Your task to perform on an android device: When is my next appointment? Image 0: 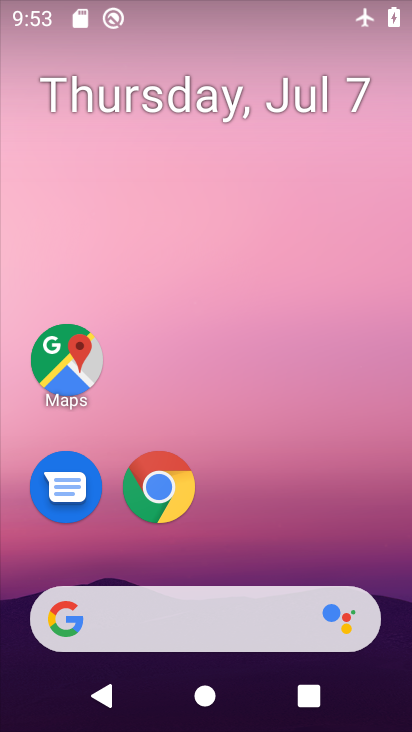
Step 0: drag from (380, 538) to (377, 141)
Your task to perform on an android device: When is my next appointment? Image 1: 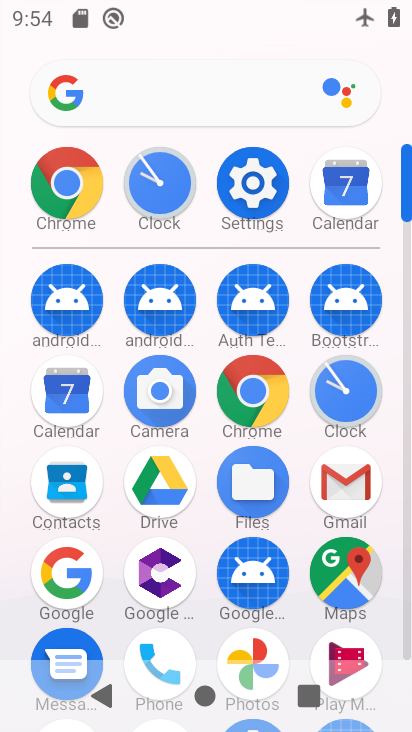
Step 1: click (73, 396)
Your task to perform on an android device: When is my next appointment? Image 2: 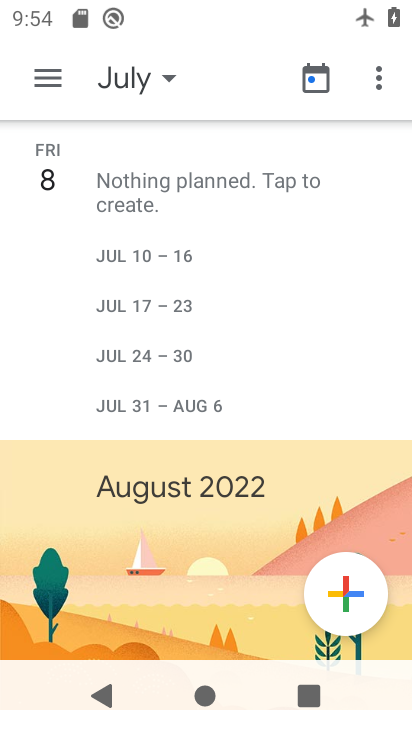
Step 2: task complete